Your task to perform on an android device: Search for vegetarian restaurants on Maps Image 0: 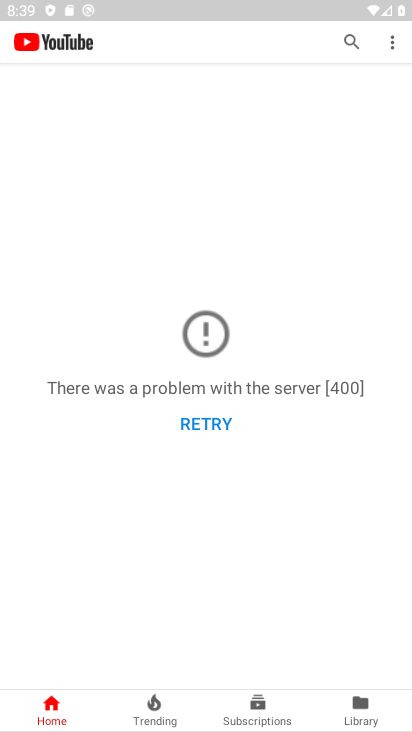
Step 0: press back button
Your task to perform on an android device: Search for vegetarian restaurants on Maps Image 1: 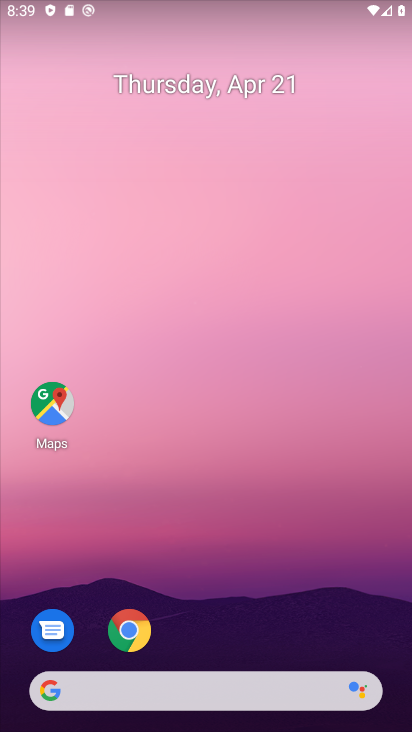
Step 1: click (46, 401)
Your task to perform on an android device: Search for vegetarian restaurants on Maps Image 2: 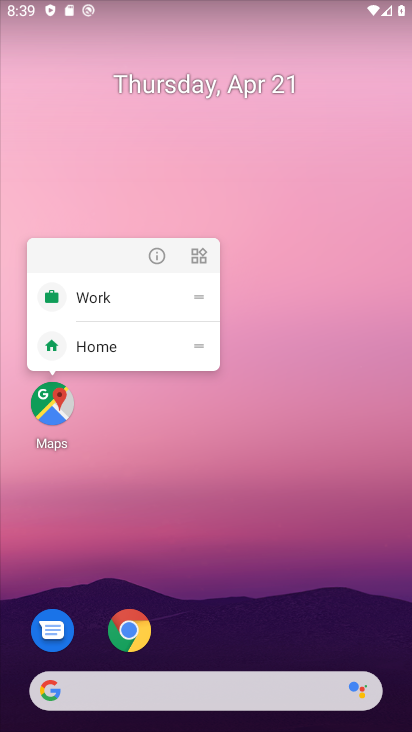
Step 2: click (47, 406)
Your task to perform on an android device: Search for vegetarian restaurants on Maps Image 3: 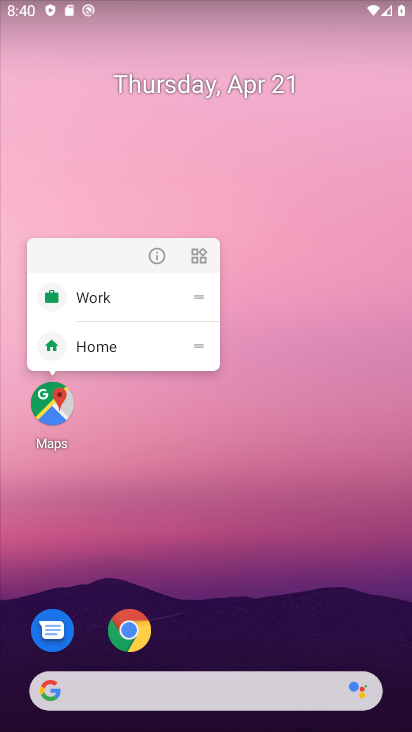
Step 3: click (44, 423)
Your task to perform on an android device: Search for vegetarian restaurants on Maps Image 4: 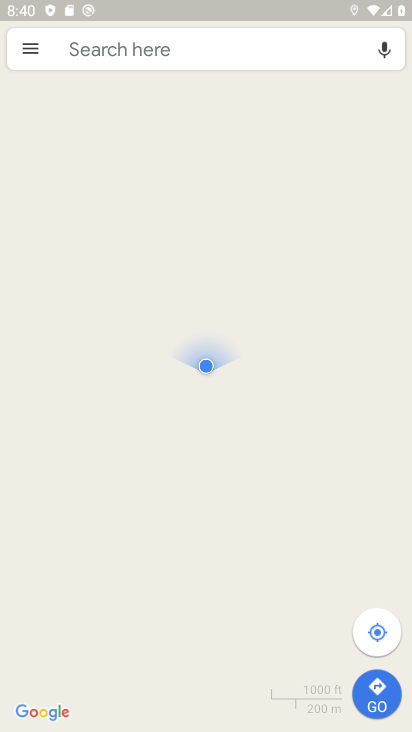
Step 4: click (154, 51)
Your task to perform on an android device: Search for vegetarian restaurants on Maps Image 5: 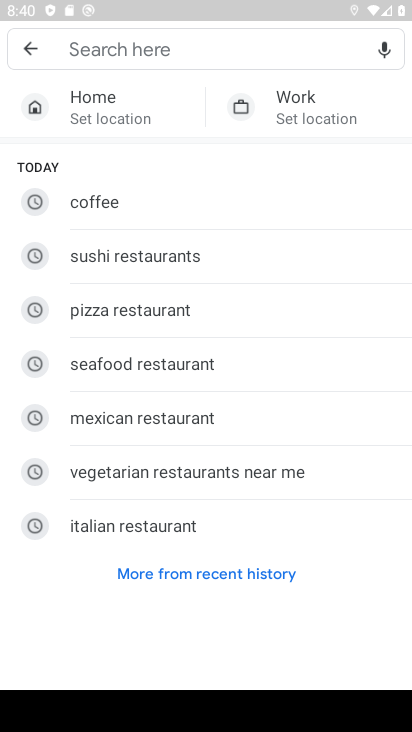
Step 5: type "vegetarian restaurants"
Your task to perform on an android device: Search for vegetarian restaurants on Maps Image 6: 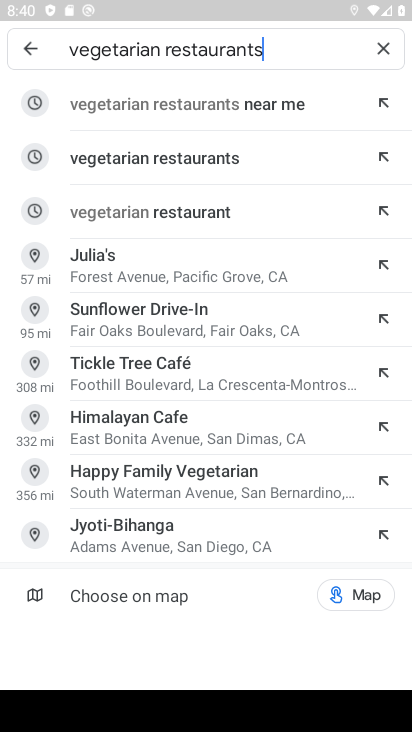
Step 6: click (224, 160)
Your task to perform on an android device: Search for vegetarian restaurants on Maps Image 7: 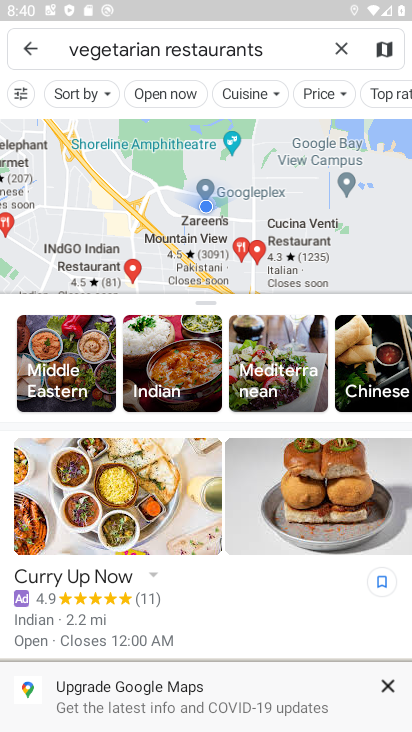
Step 7: click (394, 682)
Your task to perform on an android device: Search for vegetarian restaurants on Maps Image 8: 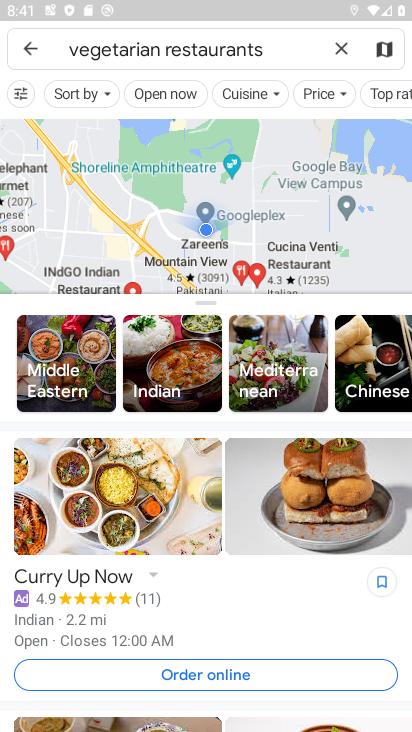
Step 8: task complete